Your task to perform on an android device: Go to ESPN.com Image 0: 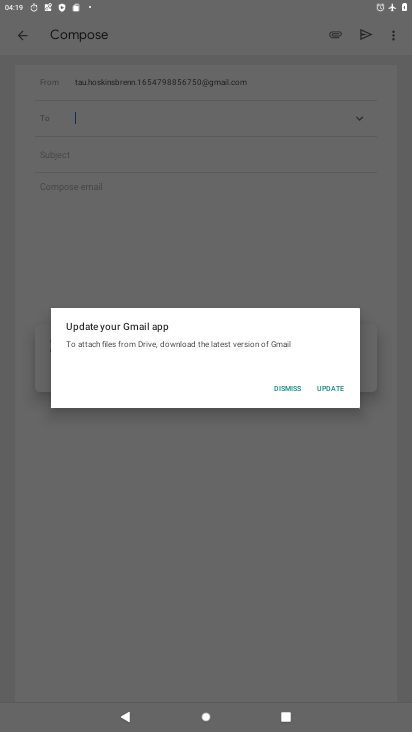
Step 0: press home button
Your task to perform on an android device: Go to ESPN.com Image 1: 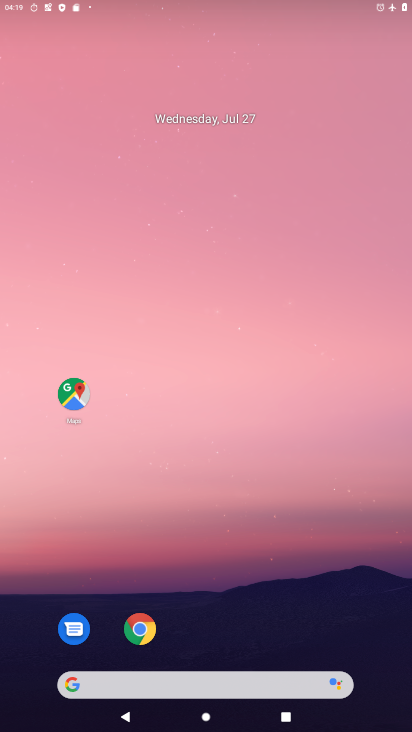
Step 1: drag from (350, 614) to (279, 1)
Your task to perform on an android device: Go to ESPN.com Image 2: 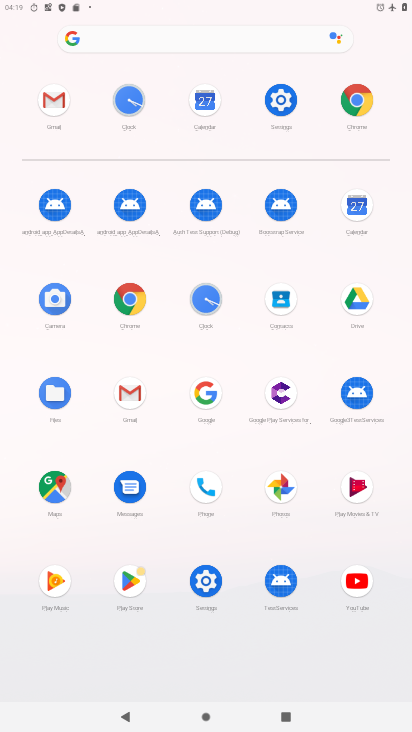
Step 2: click (356, 101)
Your task to perform on an android device: Go to ESPN.com Image 3: 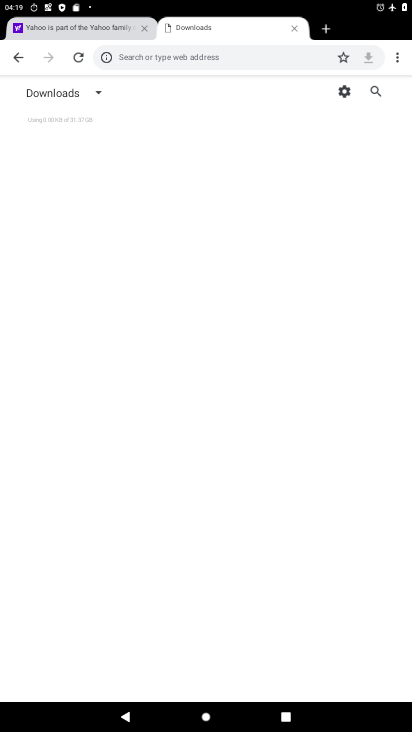
Step 3: click (197, 58)
Your task to perform on an android device: Go to ESPN.com Image 4: 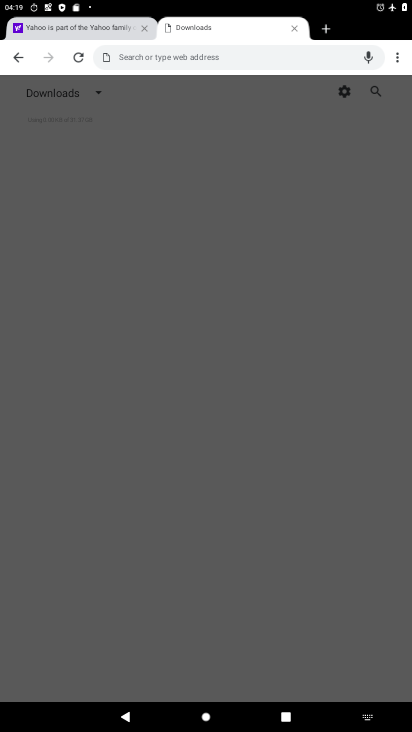
Step 4: type "espn.com"
Your task to perform on an android device: Go to ESPN.com Image 5: 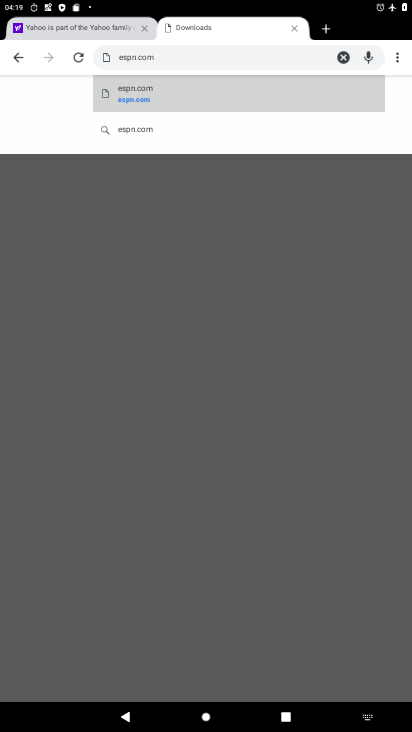
Step 5: click (159, 94)
Your task to perform on an android device: Go to ESPN.com Image 6: 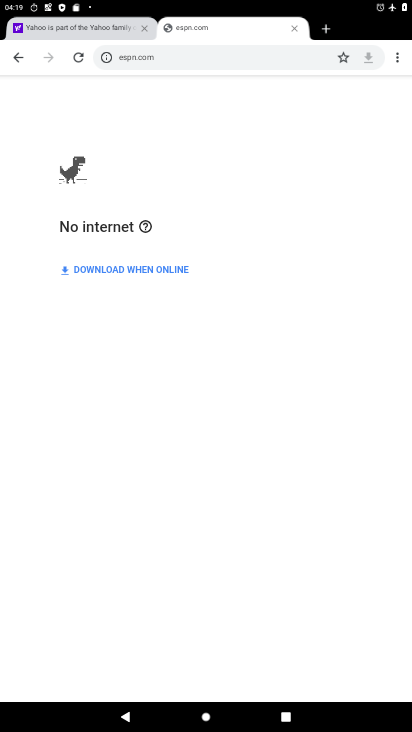
Step 6: task complete